Your task to perform on an android device: open the mobile data screen to see how much data has been used Image 0: 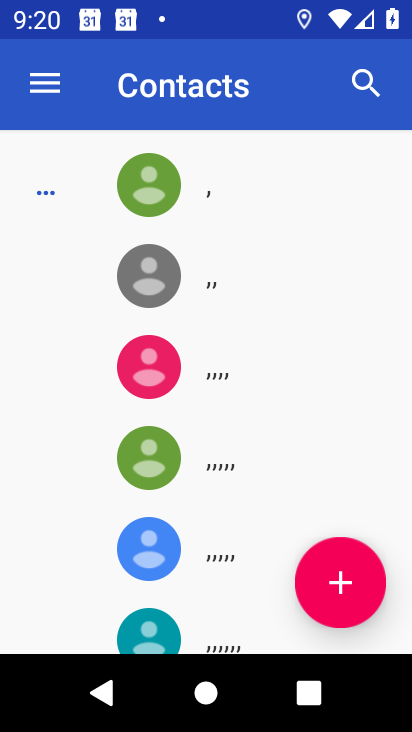
Step 0: press home button
Your task to perform on an android device: open the mobile data screen to see how much data has been used Image 1: 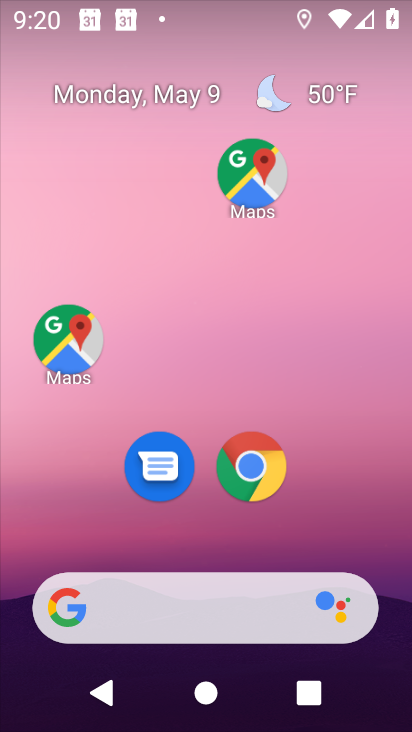
Step 1: drag from (311, 538) to (299, 73)
Your task to perform on an android device: open the mobile data screen to see how much data has been used Image 2: 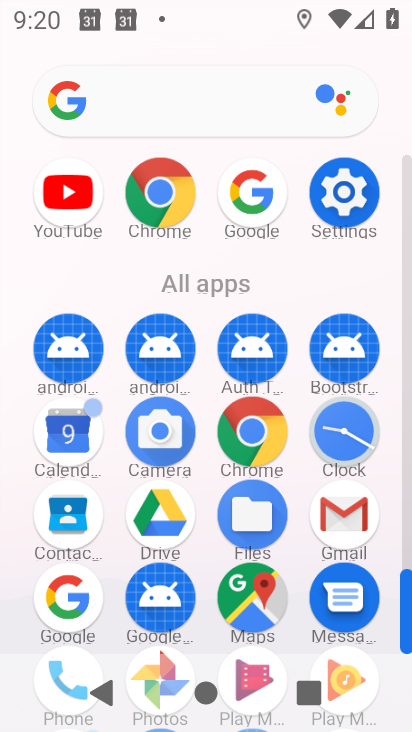
Step 2: click (354, 210)
Your task to perform on an android device: open the mobile data screen to see how much data has been used Image 3: 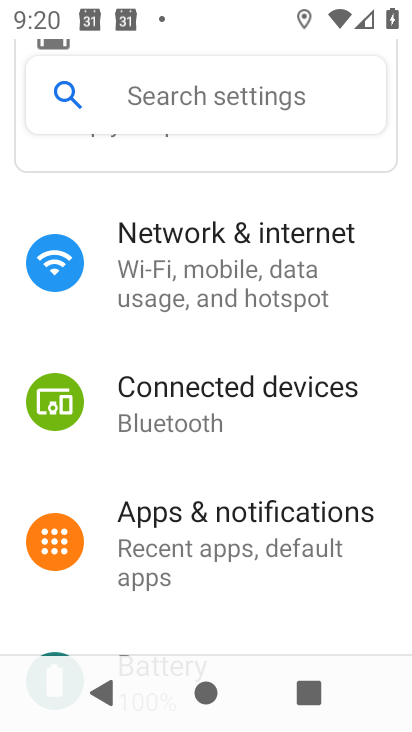
Step 3: click (232, 280)
Your task to perform on an android device: open the mobile data screen to see how much data has been used Image 4: 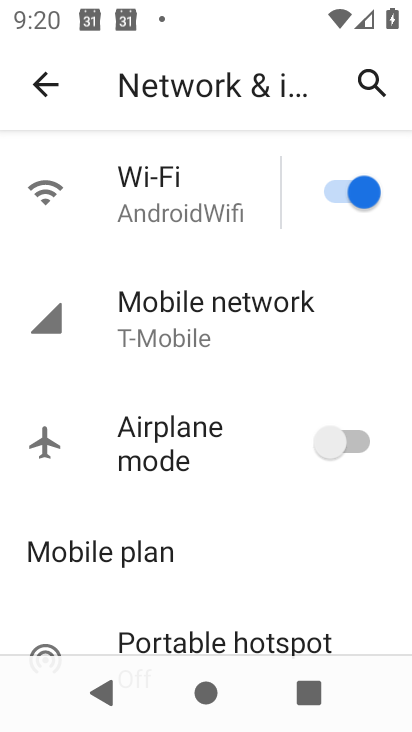
Step 4: click (228, 312)
Your task to perform on an android device: open the mobile data screen to see how much data has been used Image 5: 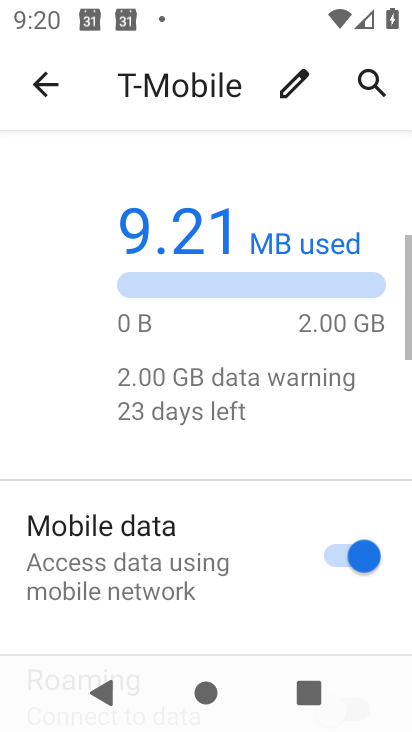
Step 5: drag from (165, 589) to (175, 132)
Your task to perform on an android device: open the mobile data screen to see how much data has been used Image 6: 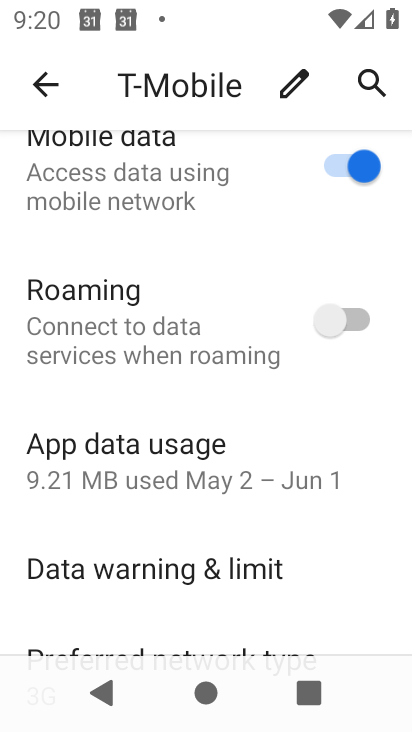
Step 6: click (179, 479)
Your task to perform on an android device: open the mobile data screen to see how much data has been used Image 7: 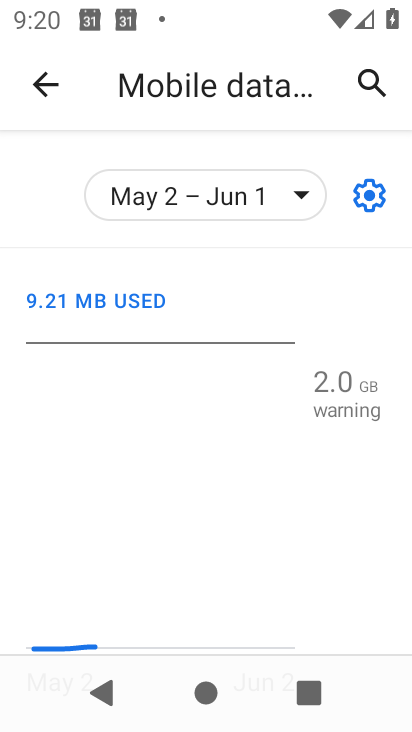
Step 7: task complete